Your task to perform on an android device: turn notification dots on Image 0: 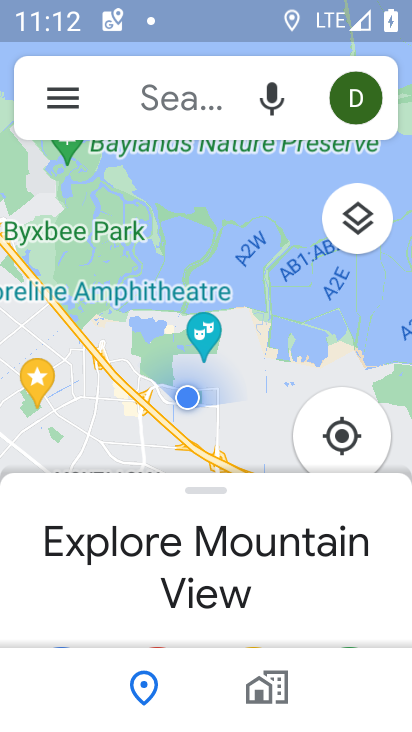
Step 0: press home button
Your task to perform on an android device: turn notification dots on Image 1: 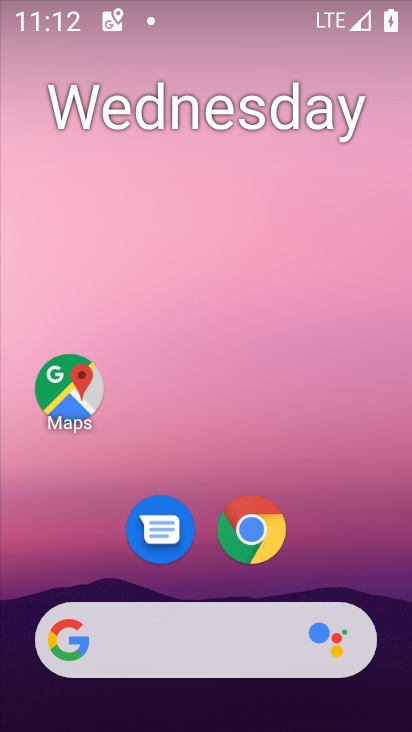
Step 1: drag from (393, 628) to (320, 39)
Your task to perform on an android device: turn notification dots on Image 2: 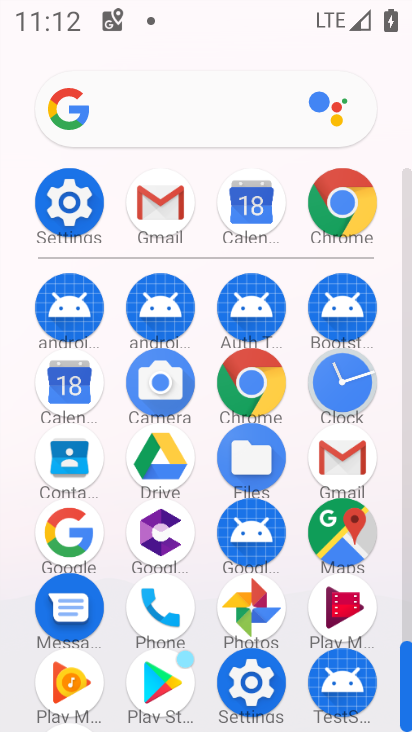
Step 2: click (249, 681)
Your task to perform on an android device: turn notification dots on Image 3: 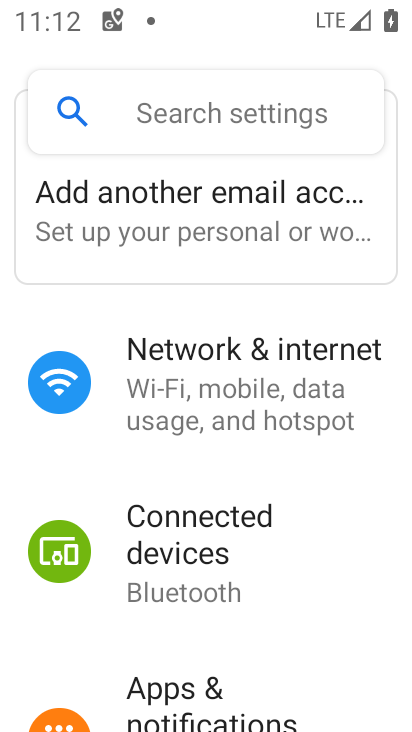
Step 3: click (180, 700)
Your task to perform on an android device: turn notification dots on Image 4: 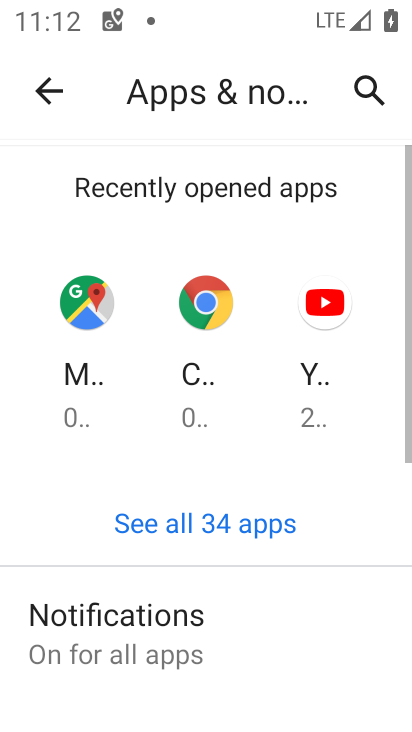
Step 4: drag from (339, 661) to (310, 286)
Your task to perform on an android device: turn notification dots on Image 5: 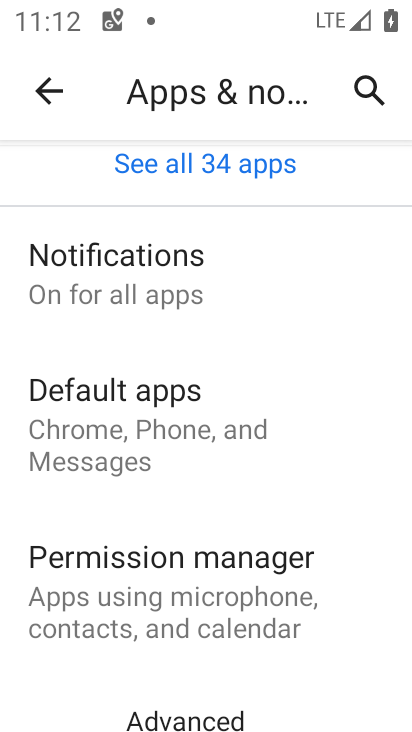
Step 5: click (82, 265)
Your task to perform on an android device: turn notification dots on Image 6: 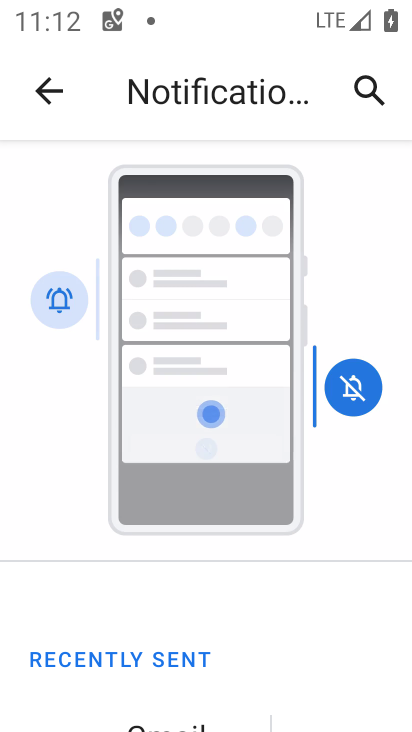
Step 6: drag from (267, 690) to (268, 178)
Your task to perform on an android device: turn notification dots on Image 7: 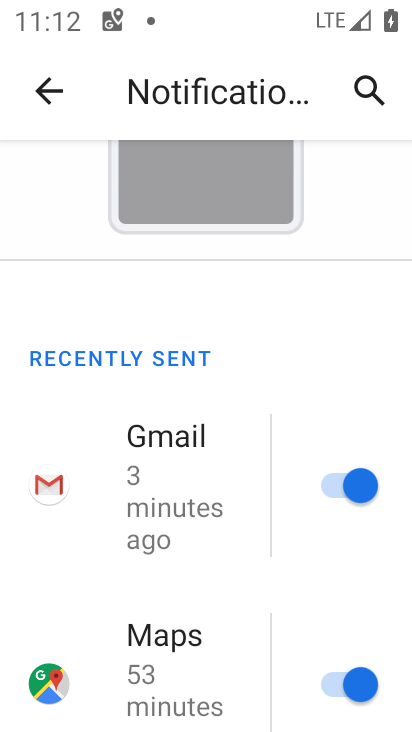
Step 7: drag from (268, 696) to (254, 195)
Your task to perform on an android device: turn notification dots on Image 8: 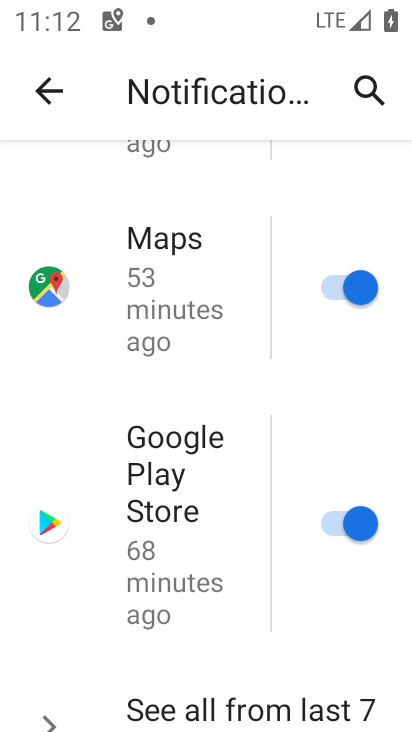
Step 8: drag from (262, 699) to (243, 162)
Your task to perform on an android device: turn notification dots on Image 9: 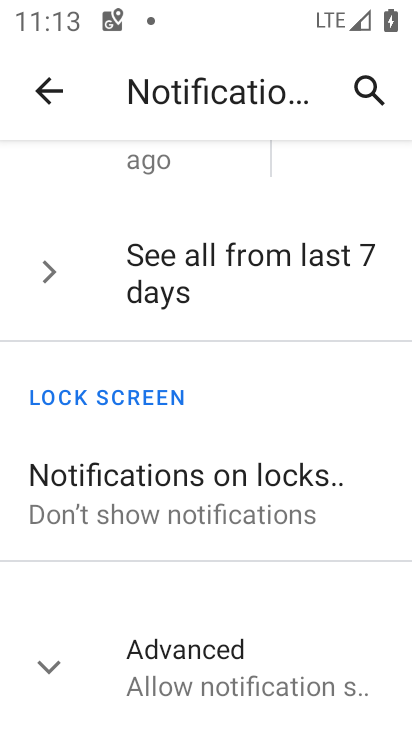
Step 9: drag from (158, 593) to (151, 465)
Your task to perform on an android device: turn notification dots on Image 10: 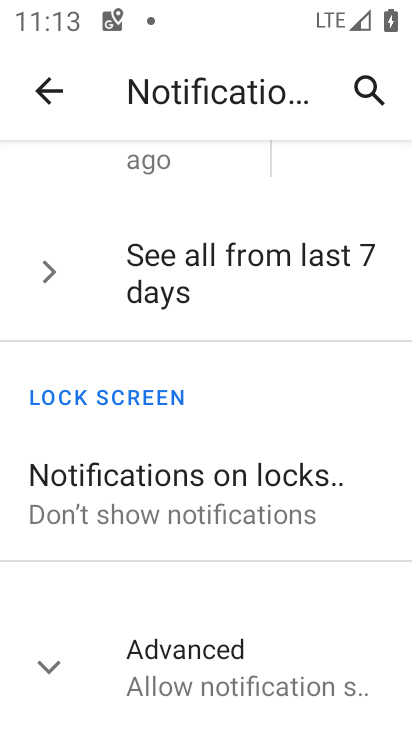
Step 10: click (50, 665)
Your task to perform on an android device: turn notification dots on Image 11: 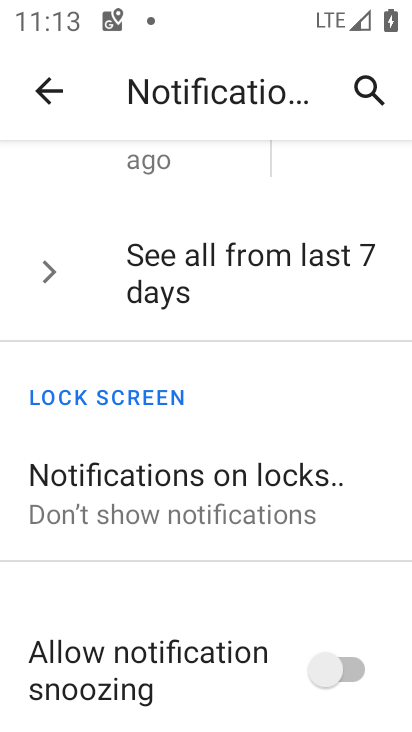
Step 11: task complete